Your task to perform on an android device: Open the calendar and show me this week's events? Image 0: 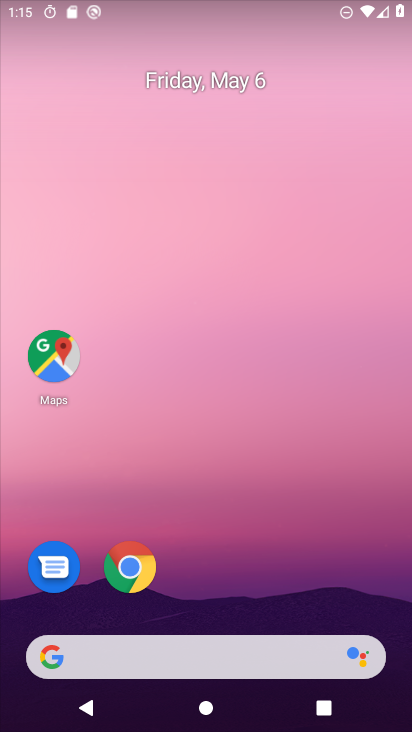
Step 0: drag from (232, 692) to (203, 172)
Your task to perform on an android device: Open the calendar and show me this week's events? Image 1: 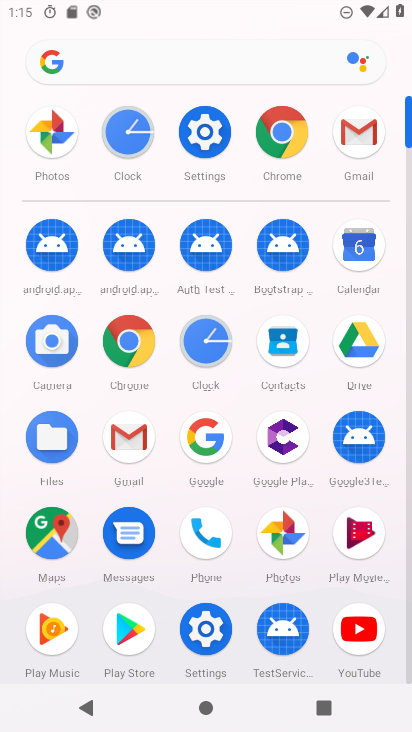
Step 1: click (359, 255)
Your task to perform on an android device: Open the calendar and show me this week's events? Image 2: 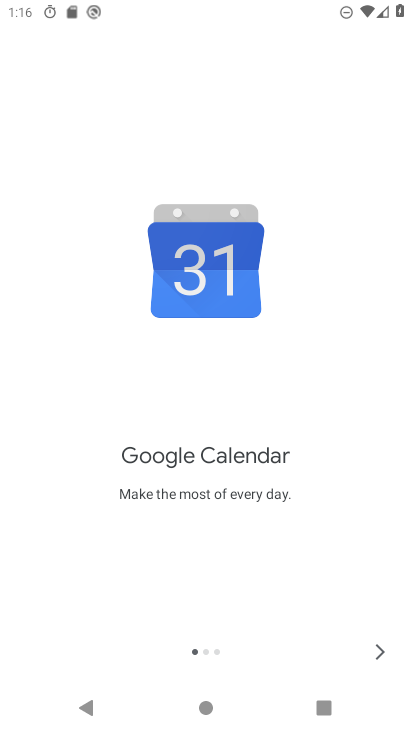
Step 2: click (364, 656)
Your task to perform on an android device: Open the calendar and show me this week's events? Image 3: 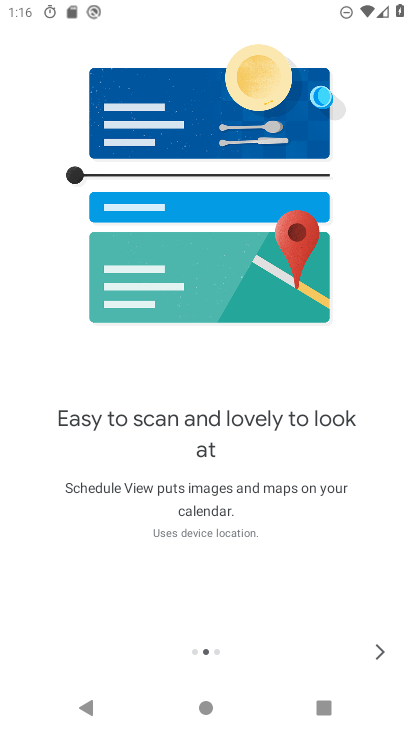
Step 3: click (378, 651)
Your task to perform on an android device: Open the calendar and show me this week's events? Image 4: 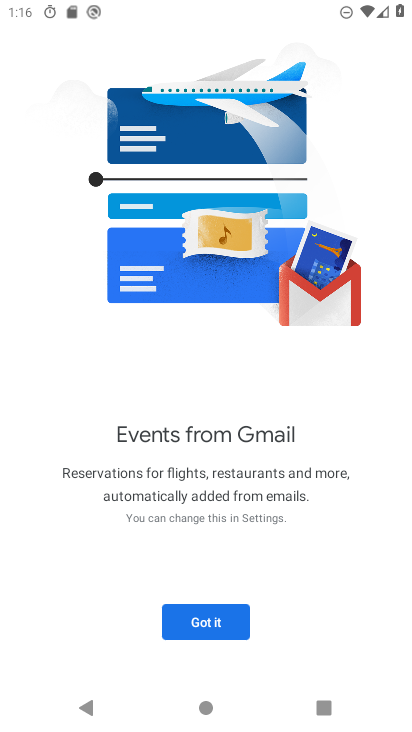
Step 4: click (203, 626)
Your task to perform on an android device: Open the calendar and show me this week's events? Image 5: 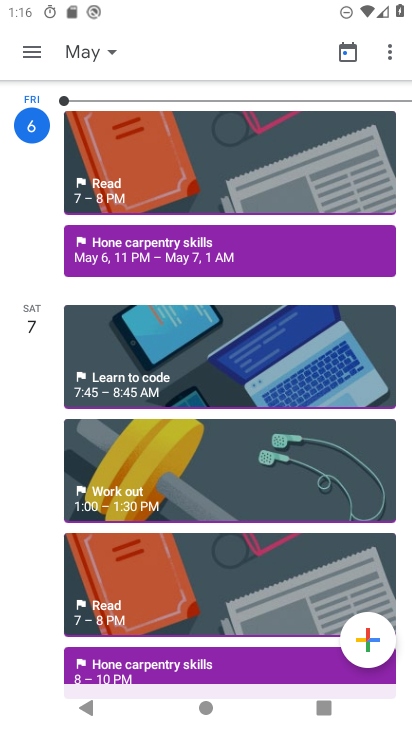
Step 5: click (33, 54)
Your task to perform on an android device: Open the calendar and show me this week's events? Image 6: 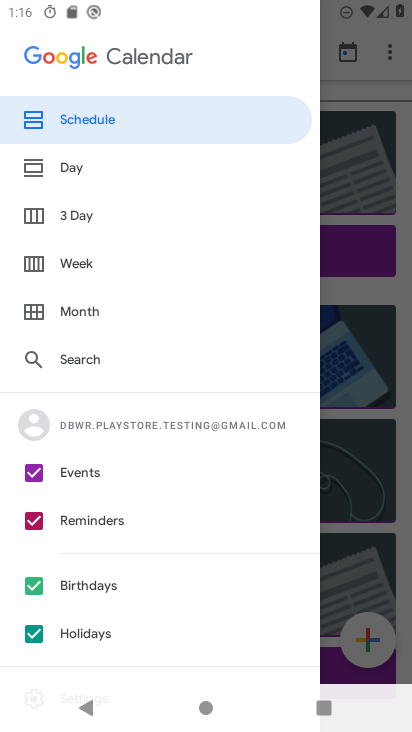
Step 6: click (112, 259)
Your task to perform on an android device: Open the calendar and show me this week's events? Image 7: 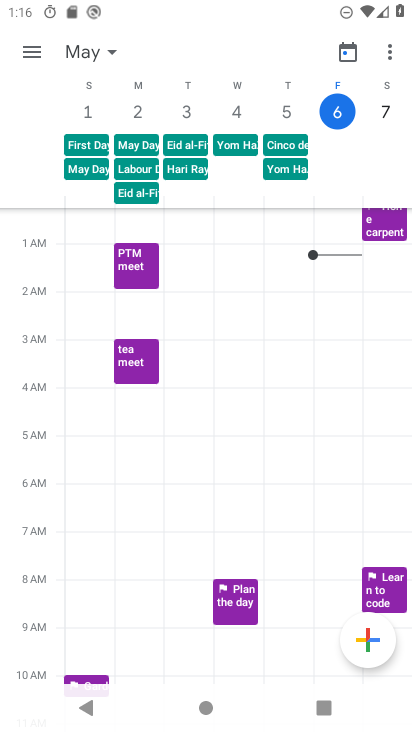
Step 7: task complete